Your task to perform on an android device: When is my next meeting? Image 0: 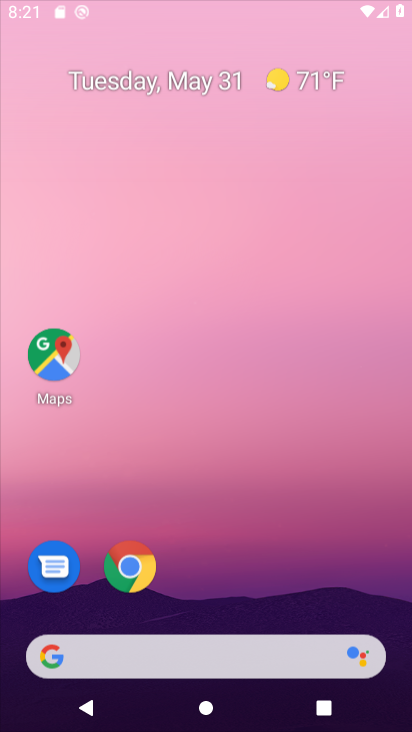
Step 0: click (54, 373)
Your task to perform on an android device: When is my next meeting? Image 1: 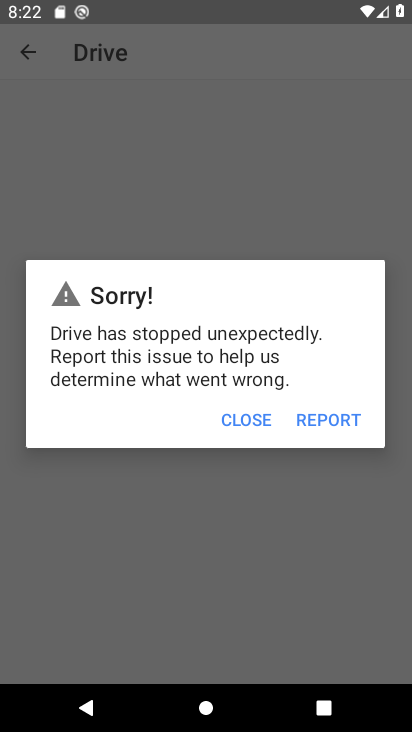
Step 1: click (54, 373)
Your task to perform on an android device: When is my next meeting? Image 2: 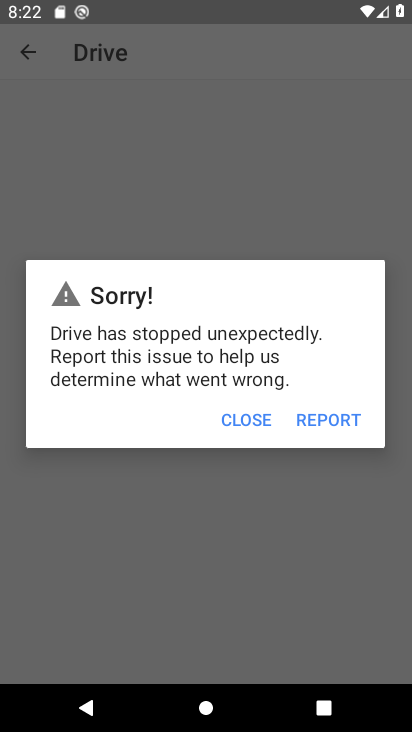
Step 2: click (242, 418)
Your task to perform on an android device: When is my next meeting? Image 3: 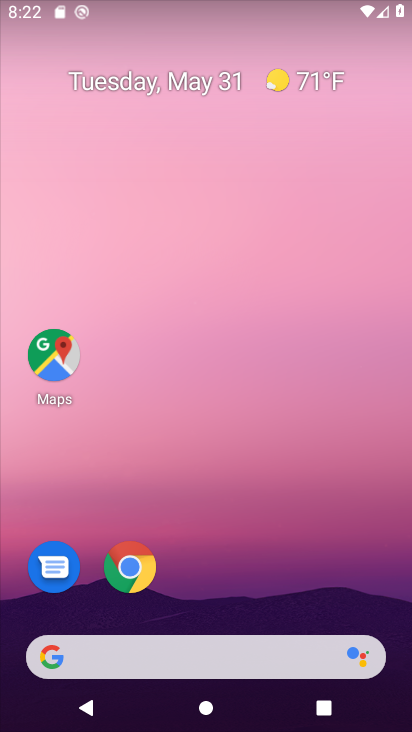
Step 3: drag from (185, 647) to (229, 250)
Your task to perform on an android device: When is my next meeting? Image 4: 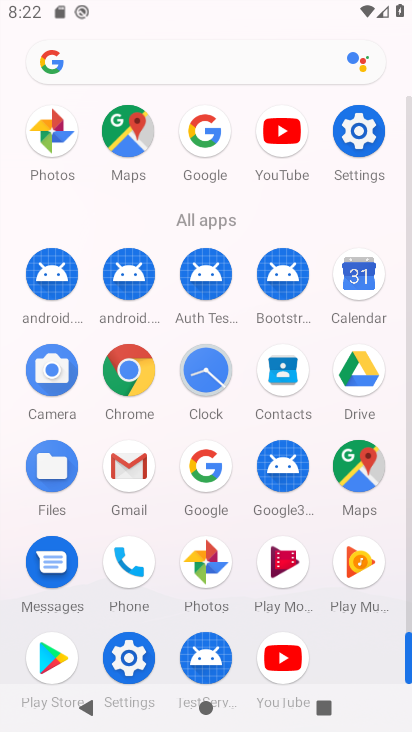
Step 4: click (365, 279)
Your task to perform on an android device: When is my next meeting? Image 5: 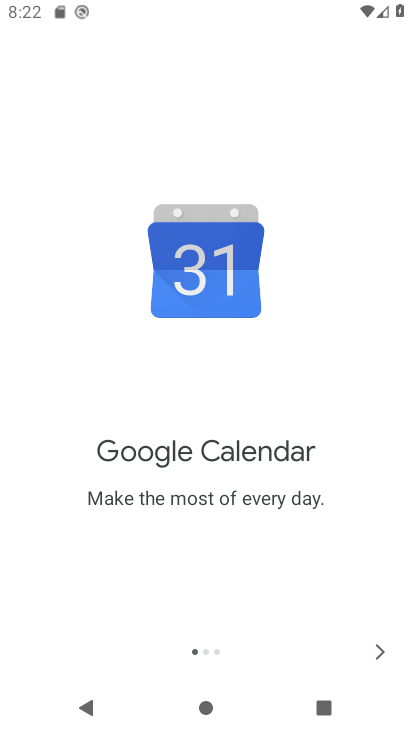
Step 5: click (379, 656)
Your task to perform on an android device: When is my next meeting? Image 6: 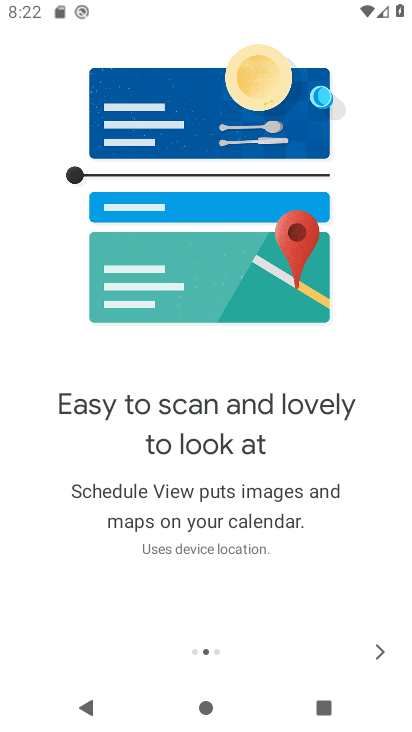
Step 6: click (381, 651)
Your task to perform on an android device: When is my next meeting? Image 7: 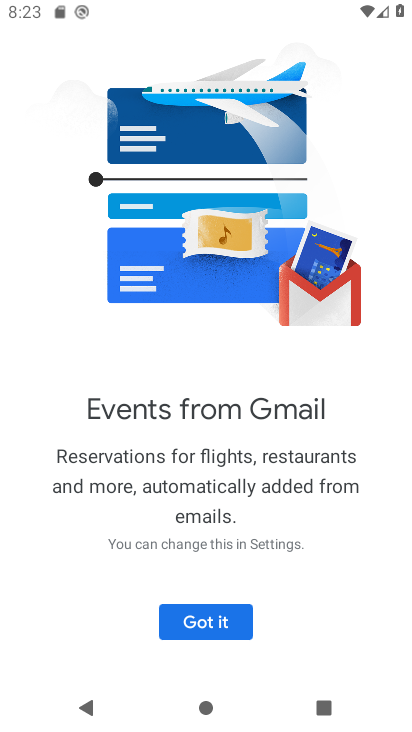
Step 7: click (200, 619)
Your task to perform on an android device: When is my next meeting? Image 8: 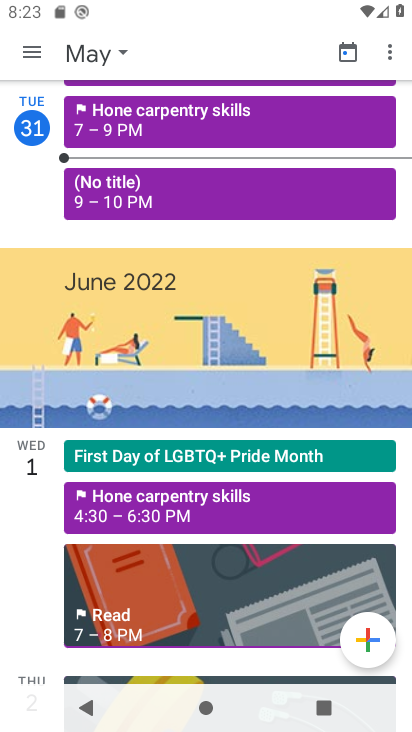
Step 8: click (109, 52)
Your task to perform on an android device: When is my next meeting? Image 9: 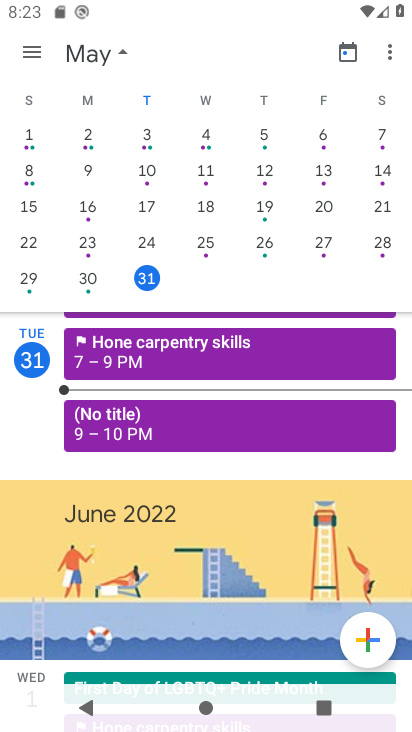
Step 9: drag from (149, 569) to (180, 305)
Your task to perform on an android device: When is my next meeting? Image 10: 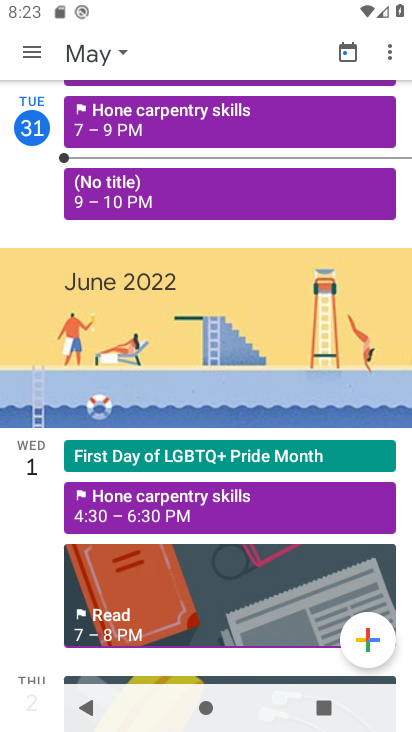
Step 10: click (147, 196)
Your task to perform on an android device: When is my next meeting? Image 11: 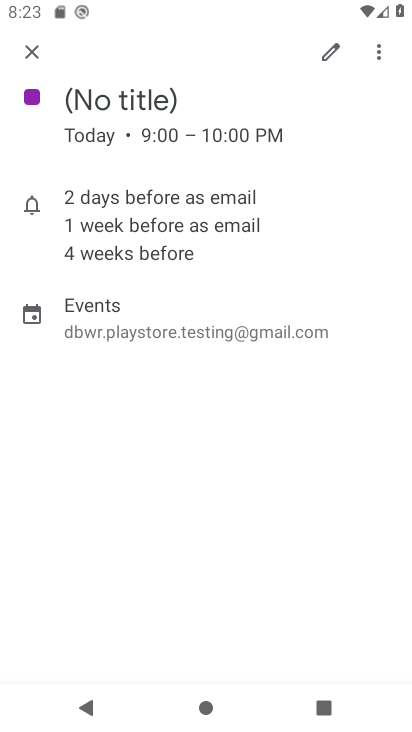
Step 11: task complete